Your task to perform on an android device: Do I have any events tomorrow? Image 0: 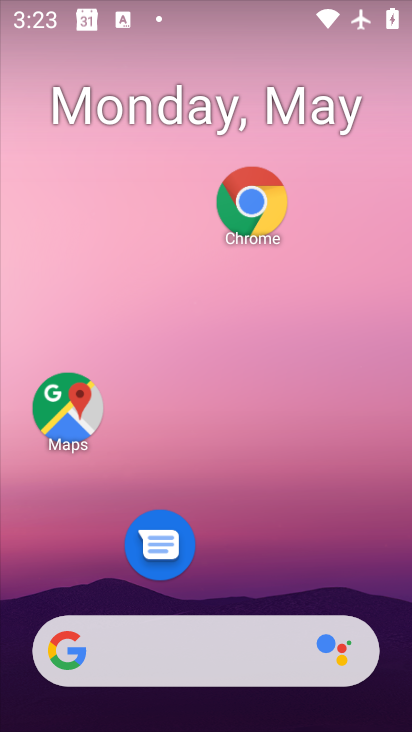
Step 0: drag from (241, 590) to (228, 205)
Your task to perform on an android device: Do I have any events tomorrow? Image 1: 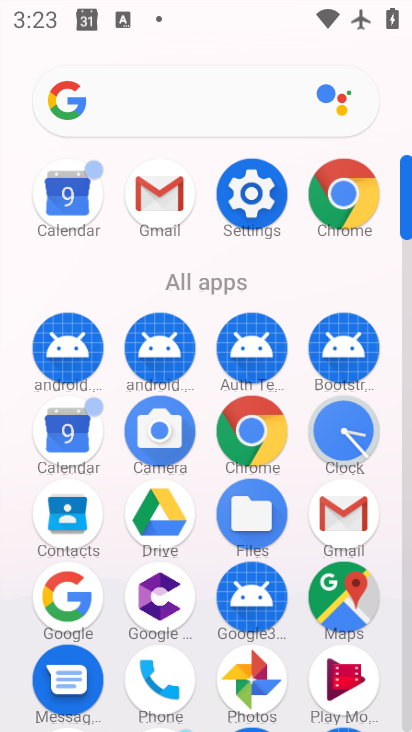
Step 1: click (82, 453)
Your task to perform on an android device: Do I have any events tomorrow? Image 2: 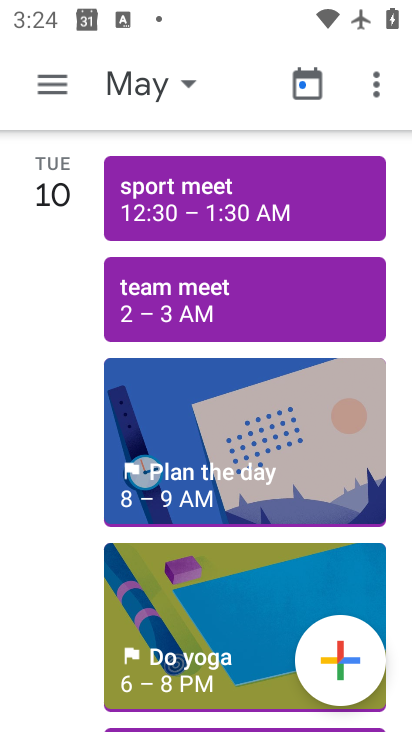
Step 2: click (194, 93)
Your task to perform on an android device: Do I have any events tomorrow? Image 3: 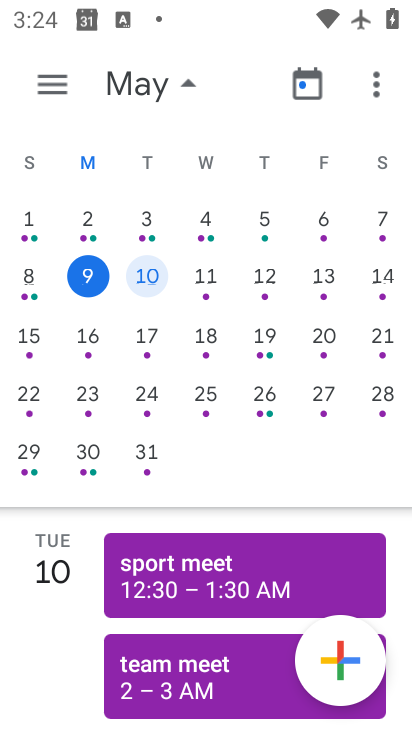
Step 3: click (141, 286)
Your task to perform on an android device: Do I have any events tomorrow? Image 4: 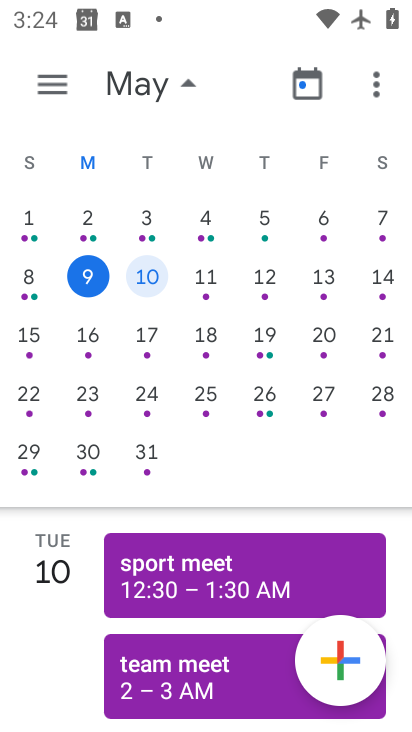
Step 4: click (147, 285)
Your task to perform on an android device: Do I have any events tomorrow? Image 5: 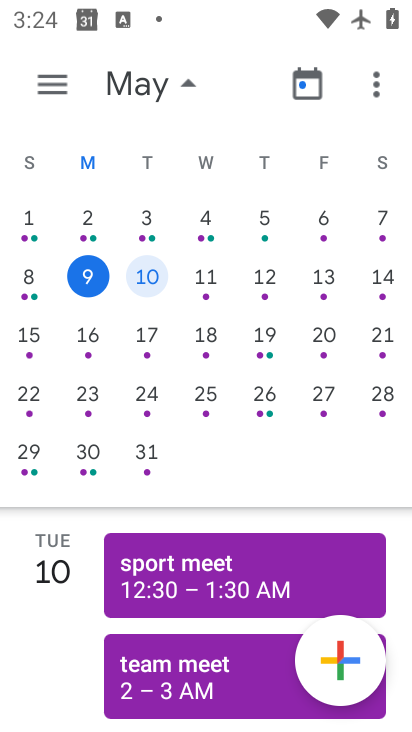
Step 5: task complete